Your task to perform on an android device: Open calendar and show me the first week of next month Image 0: 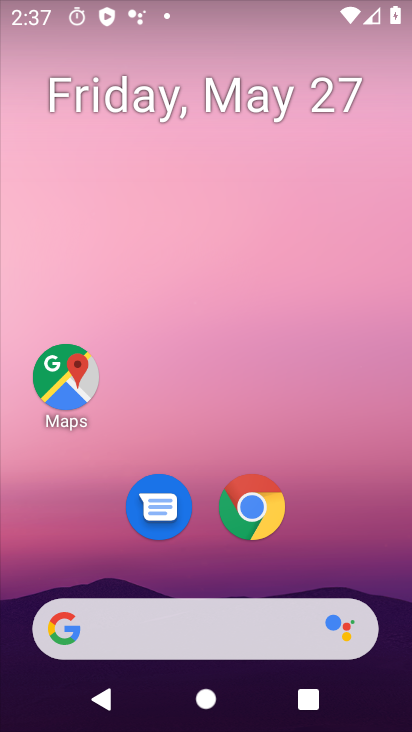
Step 0: press home button
Your task to perform on an android device: Open calendar and show me the first week of next month Image 1: 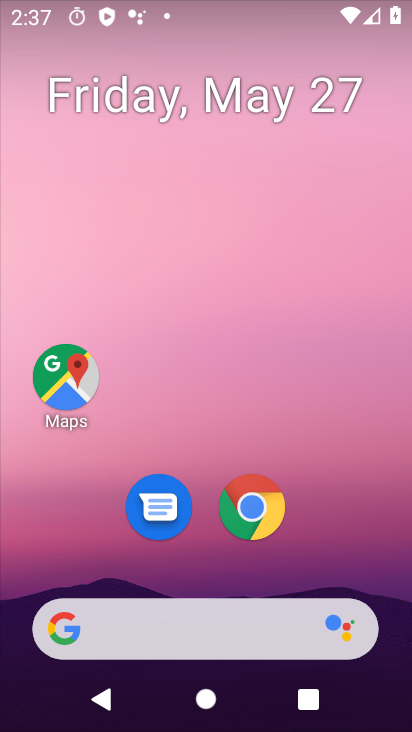
Step 1: drag from (207, 599) to (226, 83)
Your task to perform on an android device: Open calendar and show me the first week of next month Image 2: 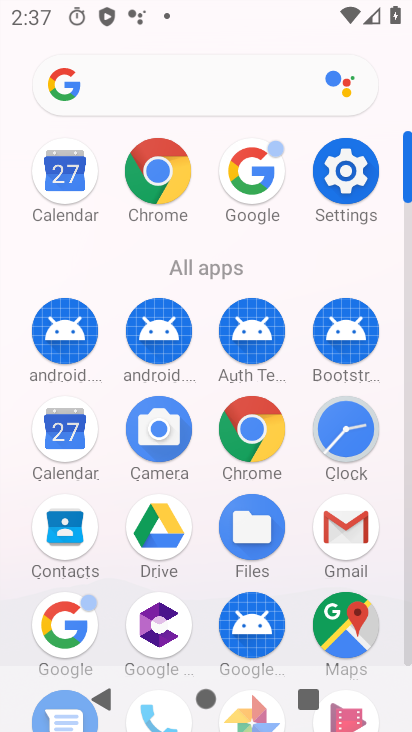
Step 2: click (47, 438)
Your task to perform on an android device: Open calendar and show me the first week of next month Image 3: 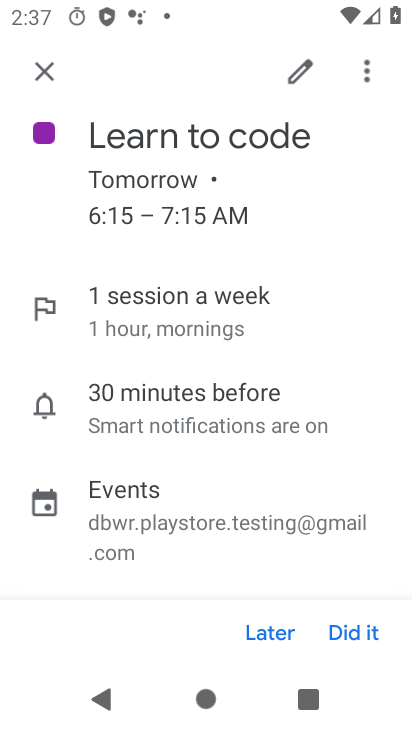
Step 3: click (53, 67)
Your task to perform on an android device: Open calendar and show me the first week of next month Image 4: 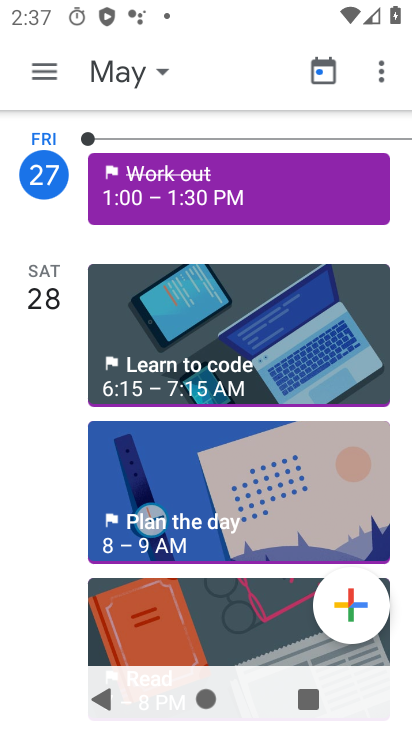
Step 4: click (138, 77)
Your task to perform on an android device: Open calendar and show me the first week of next month Image 5: 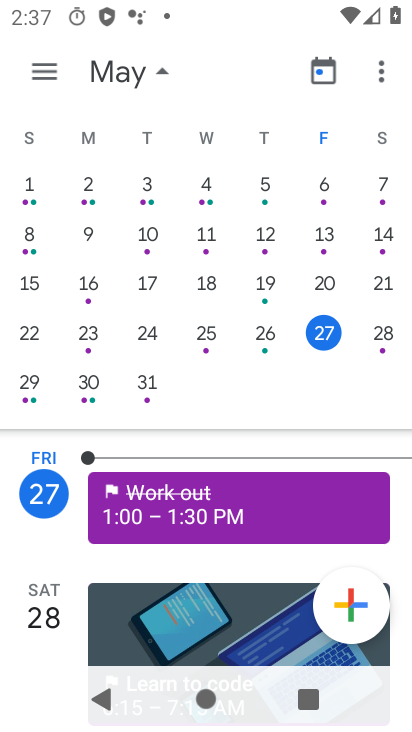
Step 5: drag from (349, 362) to (6, 313)
Your task to perform on an android device: Open calendar and show me the first week of next month Image 6: 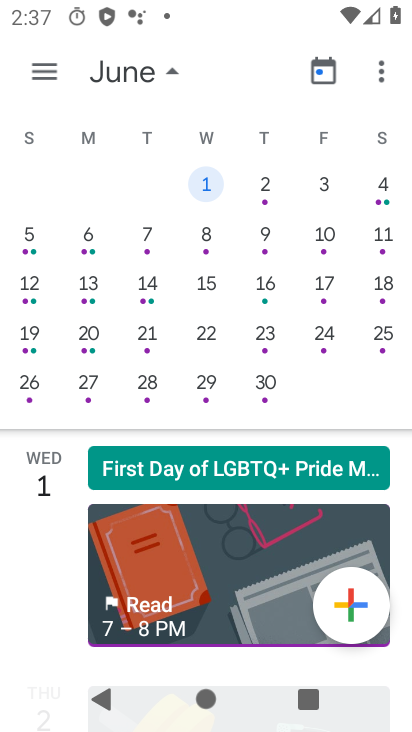
Step 6: click (211, 188)
Your task to perform on an android device: Open calendar and show me the first week of next month Image 7: 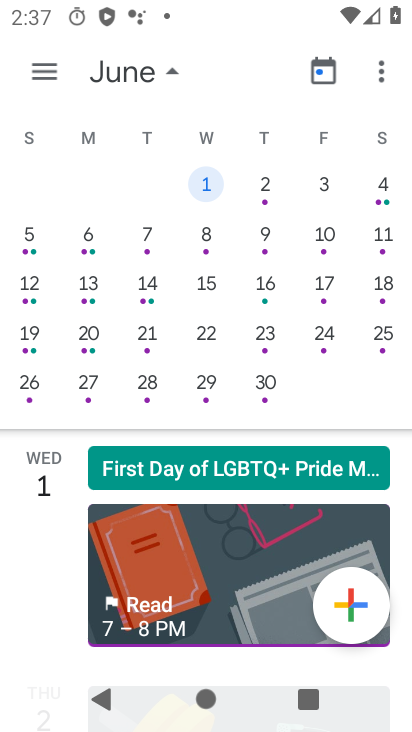
Step 7: click (213, 182)
Your task to perform on an android device: Open calendar and show me the first week of next month Image 8: 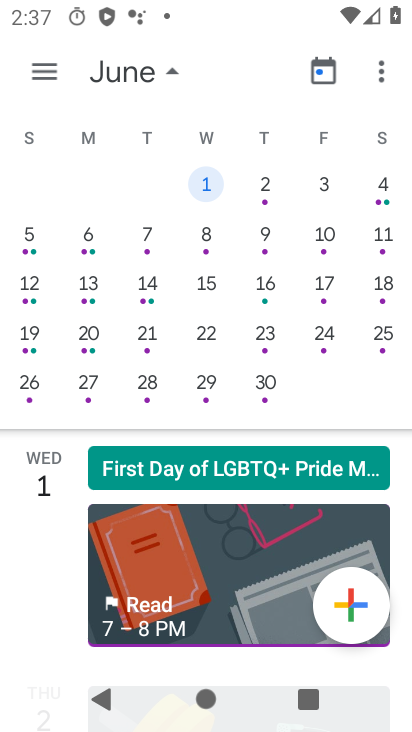
Step 8: task complete